Your task to perform on an android device: empty trash in the gmail app Image 0: 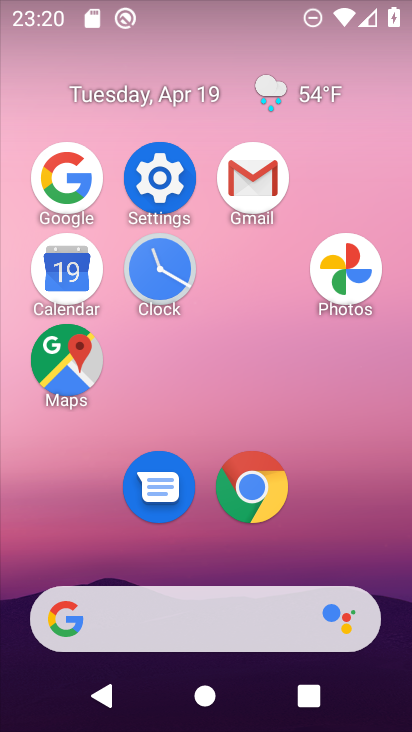
Step 0: click (249, 171)
Your task to perform on an android device: empty trash in the gmail app Image 1: 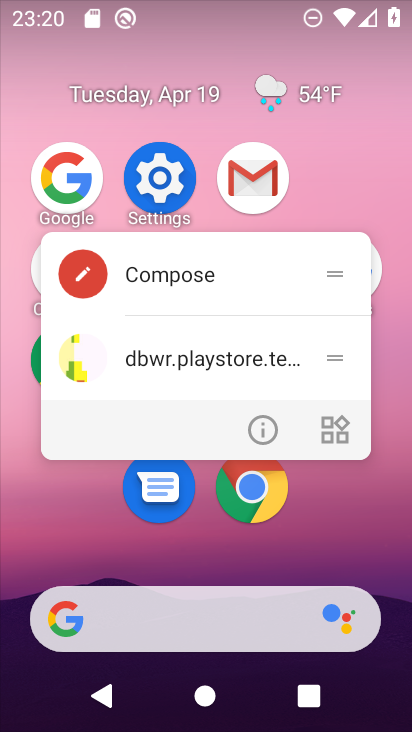
Step 1: click (249, 171)
Your task to perform on an android device: empty trash in the gmail app Image 2: 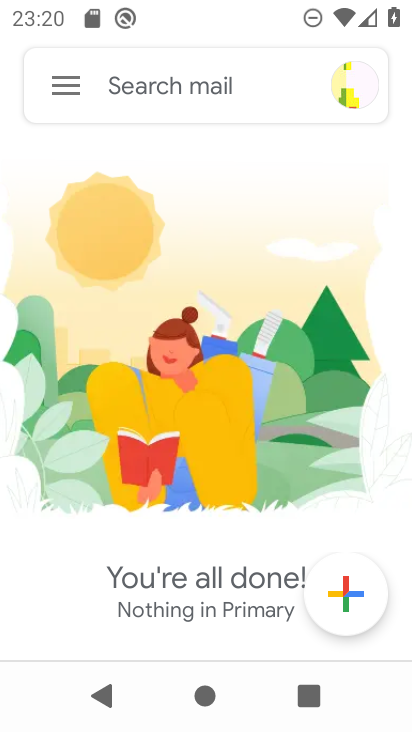
Step 2: click (61, 92)
Your task to perform on an android device: empty trash in the gmail app Image 3: 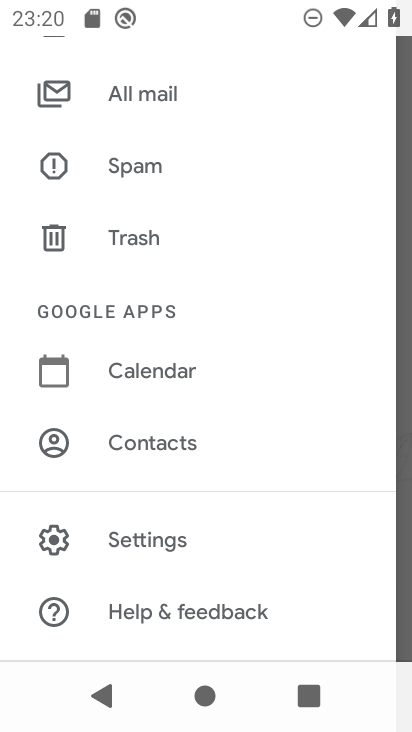
Step 3: click (209, 232)
Your task to perform on an android device: empty trash in the gmail app Image 4: 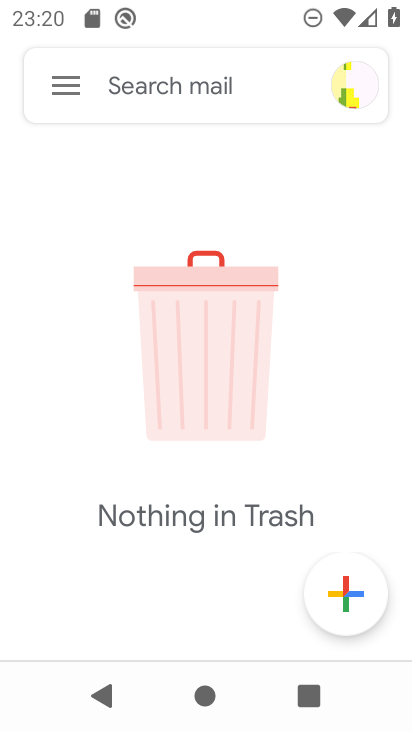
Step 4: task complete